Your task to perform on an android device: Search for pizza restaurants on Maps Image 0: 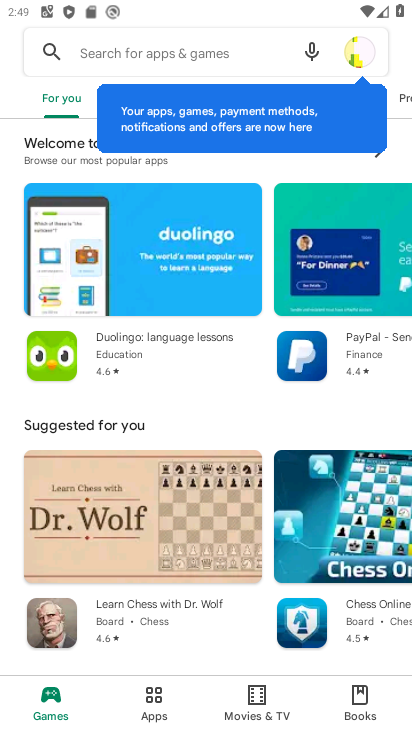
Step 0: press home button
Your task to perform on an android device: Search for pizza restaurants on Maps Image 1: 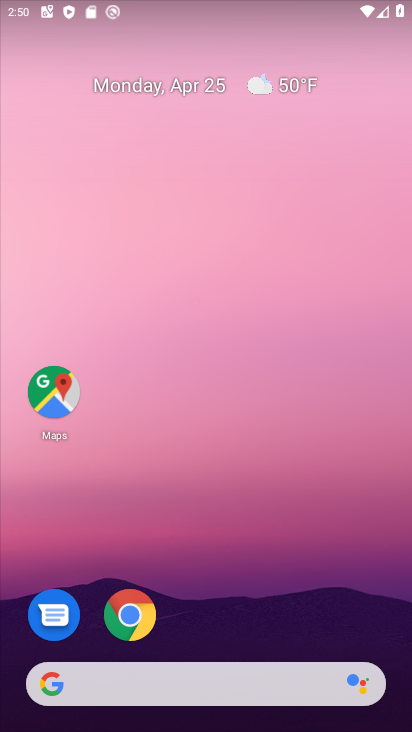
Step 1: drag from (212, 721) to (212, 222)
Your task to perform on an android device: Search for pizza restaurants on Maps Image 2: 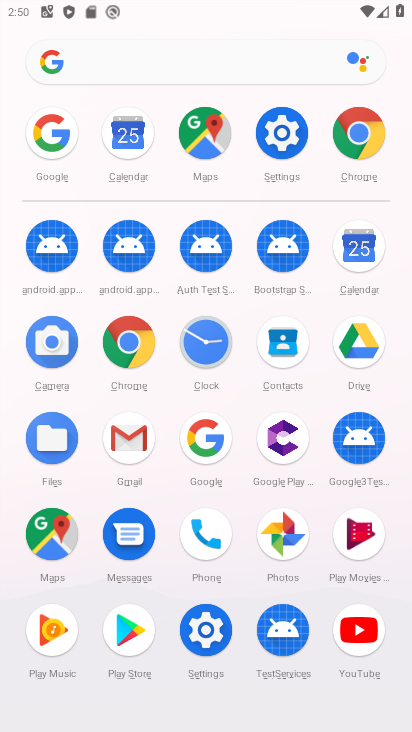
Step 2: click (47, 535)
Your task to perform on an android device: Search for pizza restaurants on Maps Image 3: 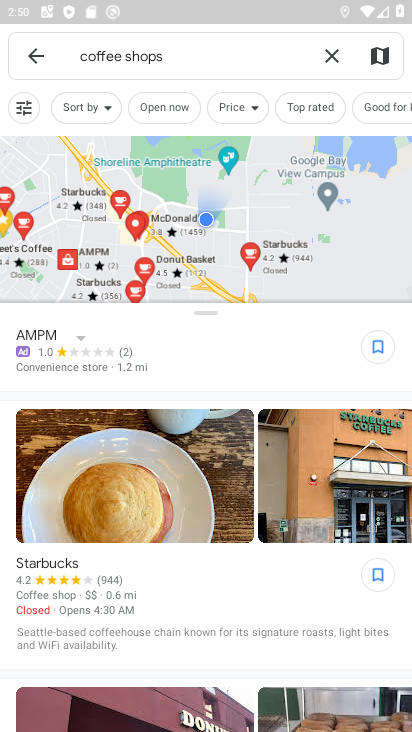
Step 3: click (330, 55)
Your task to perform on an android device: Search for pizza restaurants on Maps Image 4: 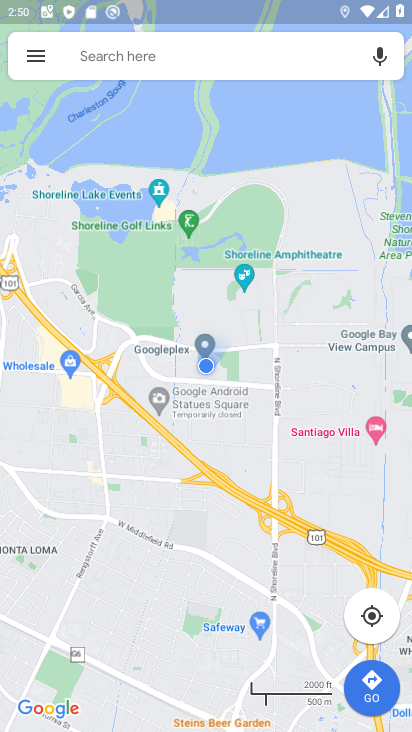
Step 4: click (170, 57)
Your task to perform on an android device: Search for pizza restaurants on Maps Image 5: 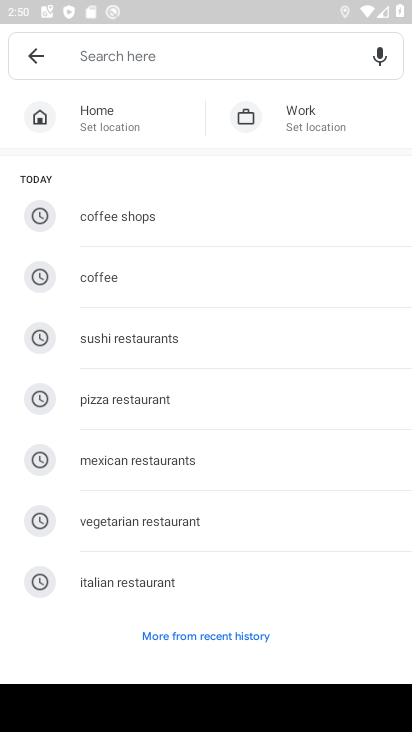
Step 5: type "pizza restaurants"
Your task to perform on an android device: Search for pizza restaurants on Maps Image 6: 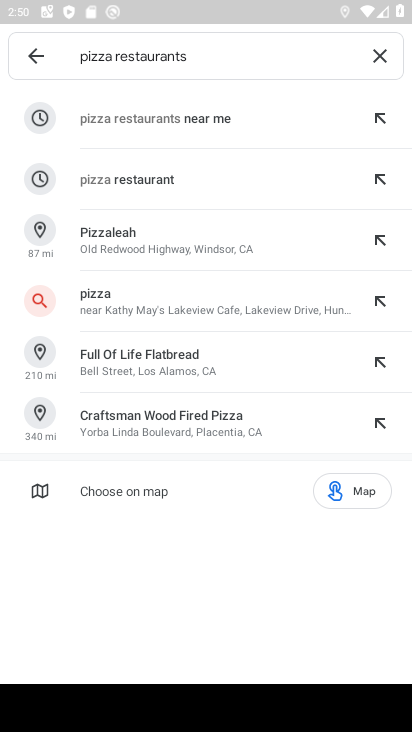
Step 6: click (153, 175)
Your task to perform on an android device: Search for pizza restaurants on Maps Image 7: 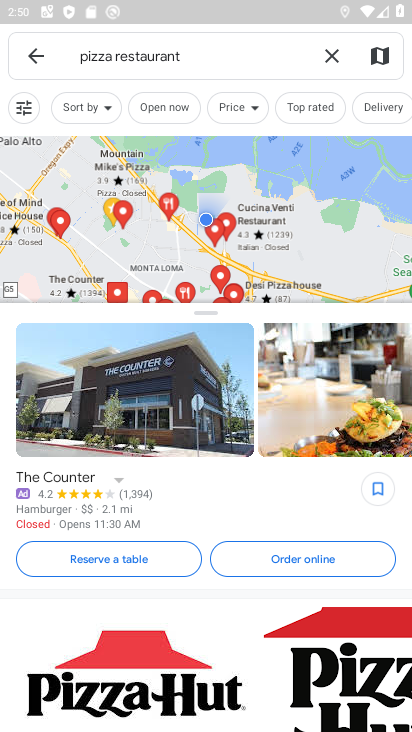
Step 7: task complete